Your task to perform on an android device: move a message to another label in the gmail app Image 0: 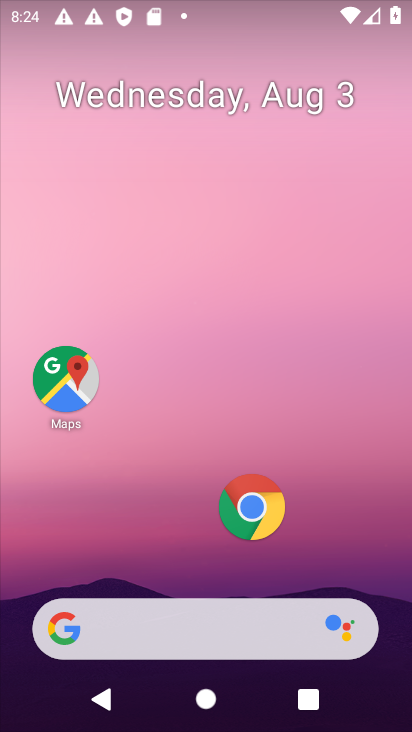
Step 0: click (250, 67)
Your task to perform on an android device: move a message to another label in the gmail app Image 1: 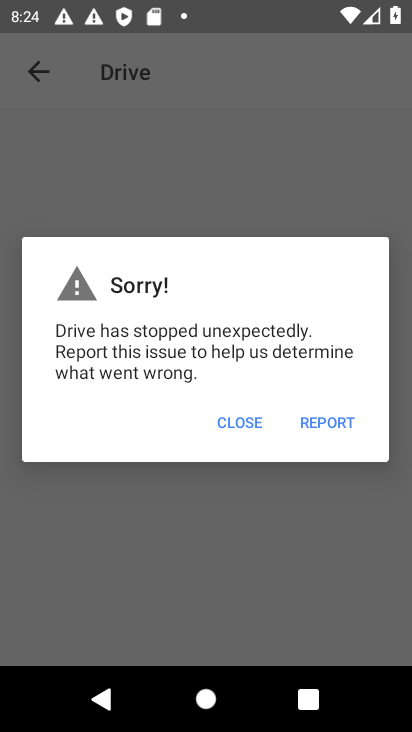
Step 1: click (240, 418)
Your task to perform on an android device: move a message to another label in the gmail app Image 2: 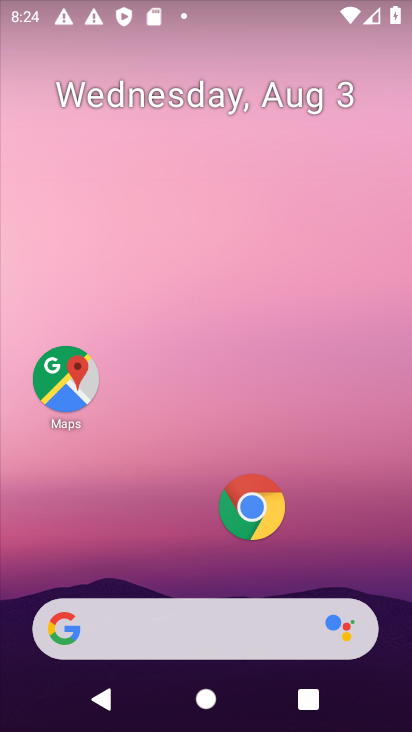
Step 2: drag from (210, 415) to (212, 173)
Your task to perform on an android device: move a message to another label in the gmail app Image 3: 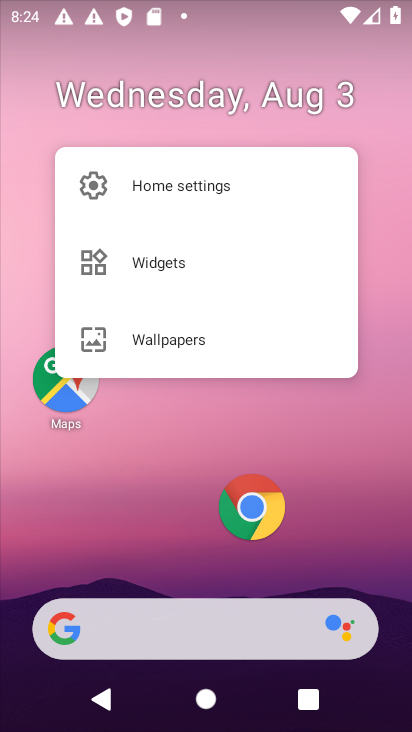
Step 3: click (180, 585)
Your task to perform on an android device: move a message to another label in the gmail app Image 4: 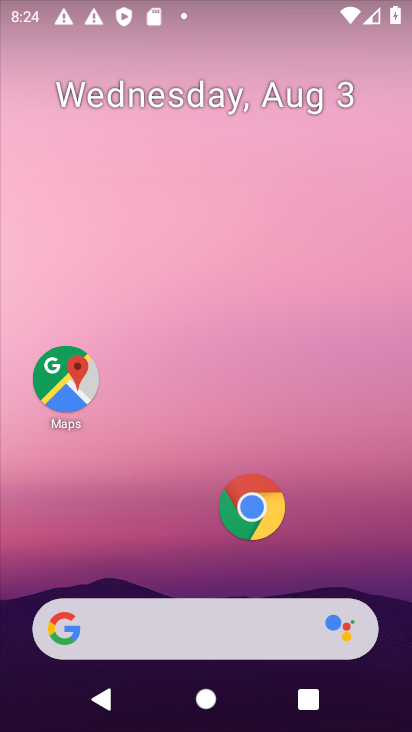
Step 4: drag from (180, 565) to (180, 50)
Your task to perform on an android device: move a message to another label in the gmail app Image 5: 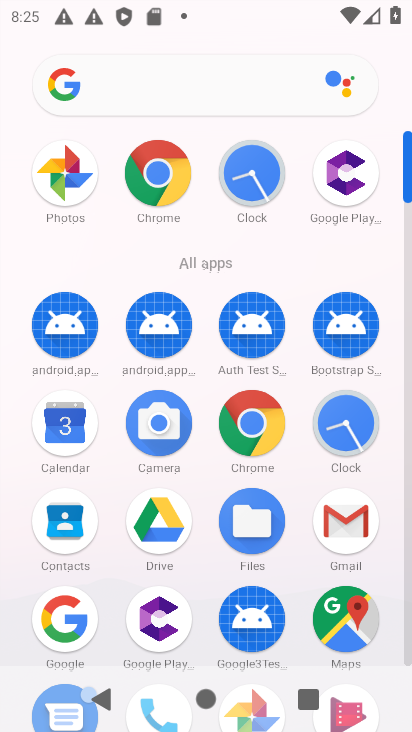
Step 5: click (344, 523)
Your task to perform on an android device: move a message to another label in the gmail app Image 6: 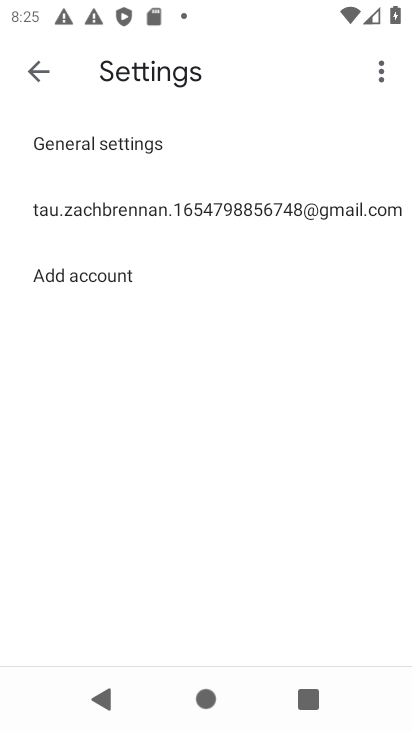
Step 6: click (214, 204)
Your task to perform on an android device: move a message to another label in the gmail app Image 7: 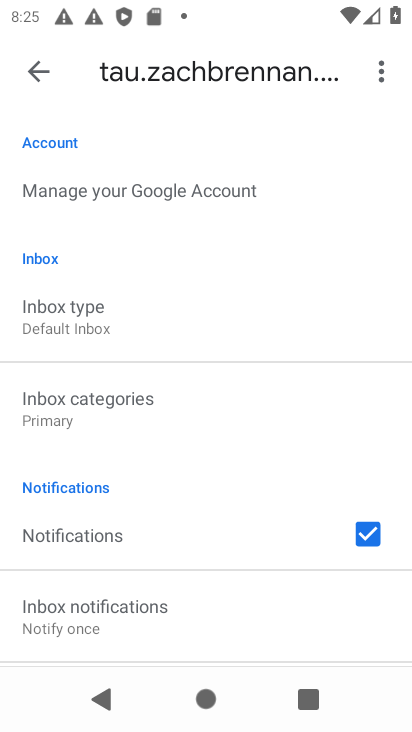
Step 7: click (23, 65)
Your task to perform on an android device: move a message to another label in the gmail app Image 8: 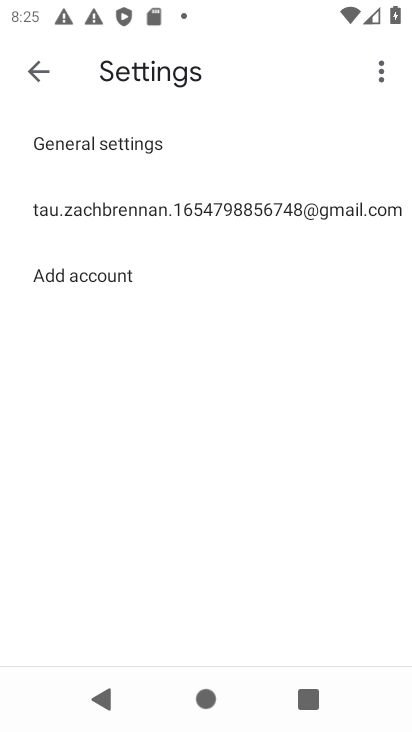
Step 8: click (23, 65)
Your task to perform on an android device: move a message to another label in the gmail app Image 9: 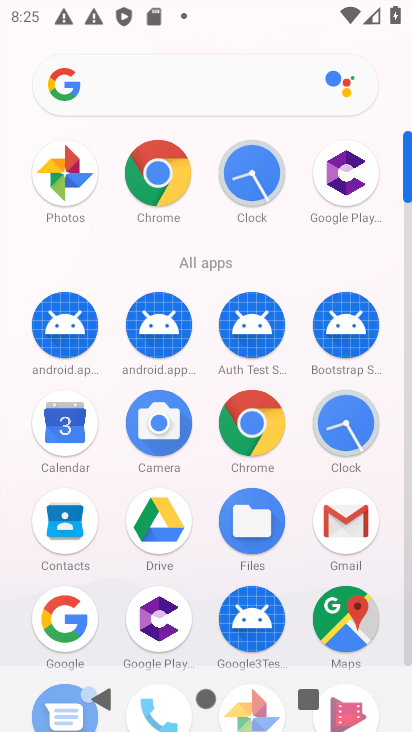
Step 9: click (332, 523)
Your task to perform on an android device: move a message to another label in the gmail app Image 10: 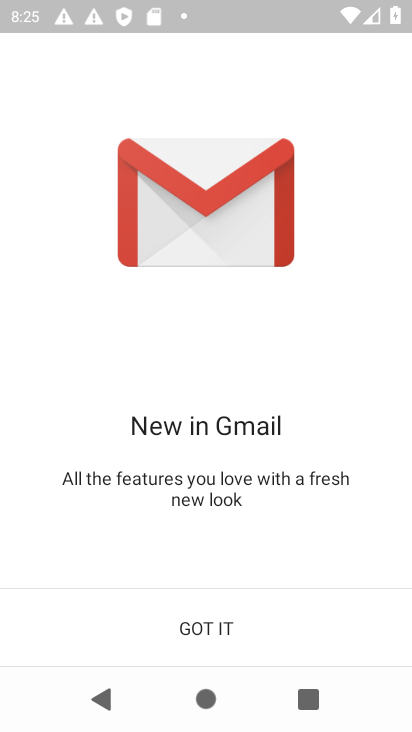
Step 10: click (197, 636)
Your task to perform on an android device: move a message to another label in the gmail app Image 11: 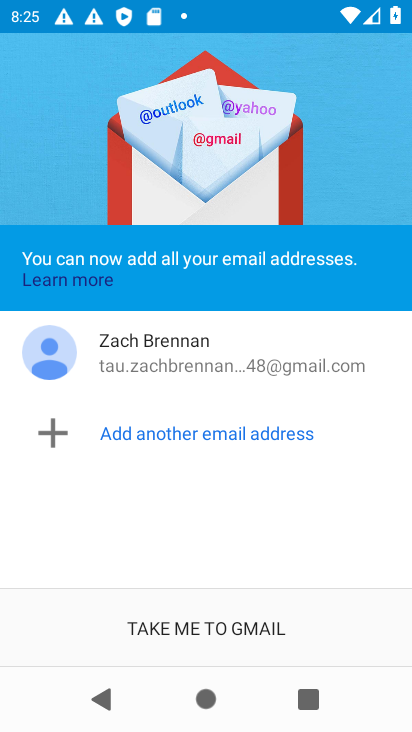
Step 11: click (197, 636)
Your task to perform on an android device: move a message to another label in the gmail app Image 12: 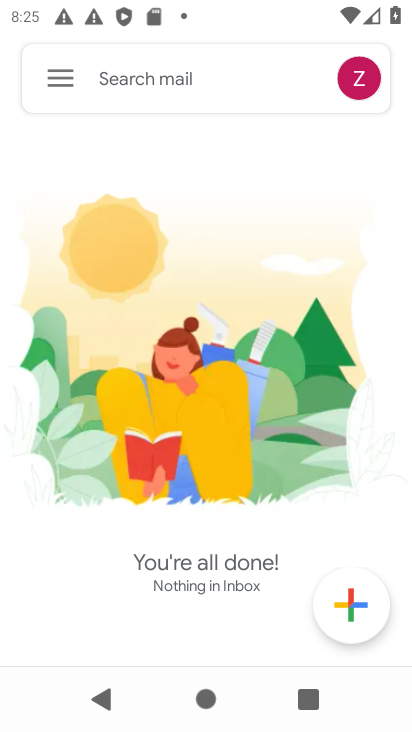
Step 12: click (61, 74)
Your task to perform on an android device: move a message to another label in the gmail app Image 13: 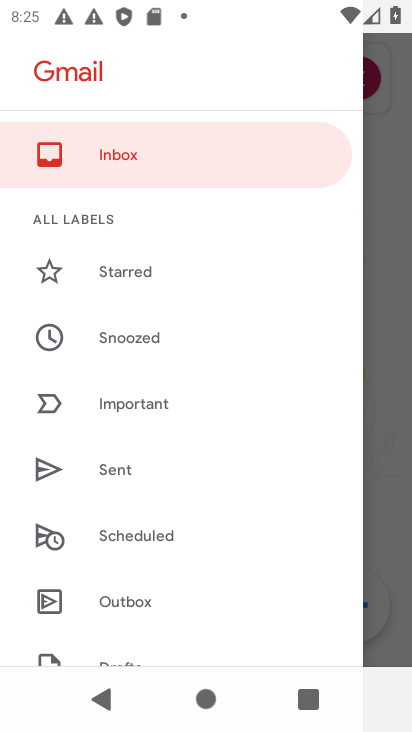
Step 13: click (183, 597)
Your task to perform on an android device: move a message to another label in the gmail app Image 14: 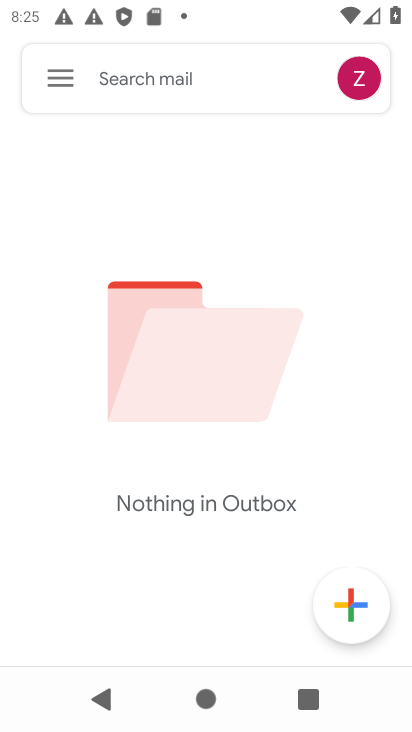
Step 14: click (49, 67)
Your task to perform on an android device: move a message to another label in the gmail app Image 15: 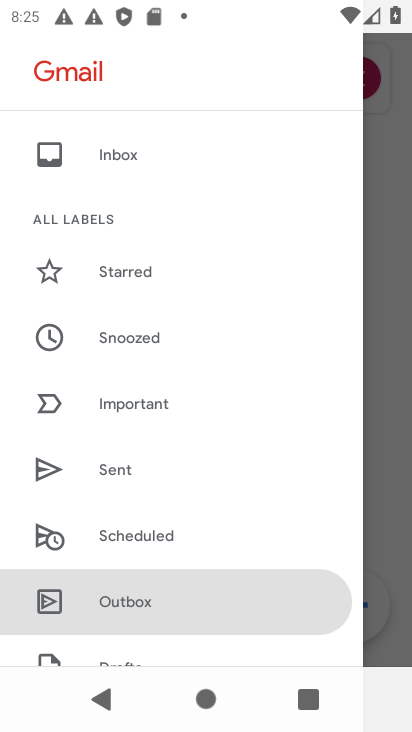
Step 15: drag from (164, 445) to (171, 269)
Your task to perform on an android device: move a message to another label in the gmail app Image 16: 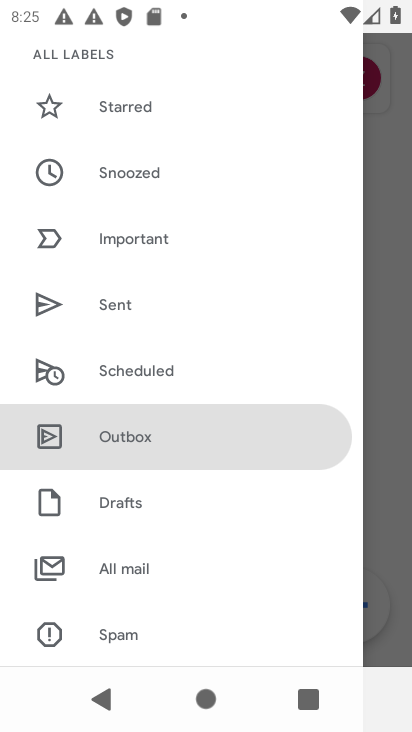
Step 16: click (103, 578)
Your task to perform on an android device: move a message to another label in the gmail app Image 17: 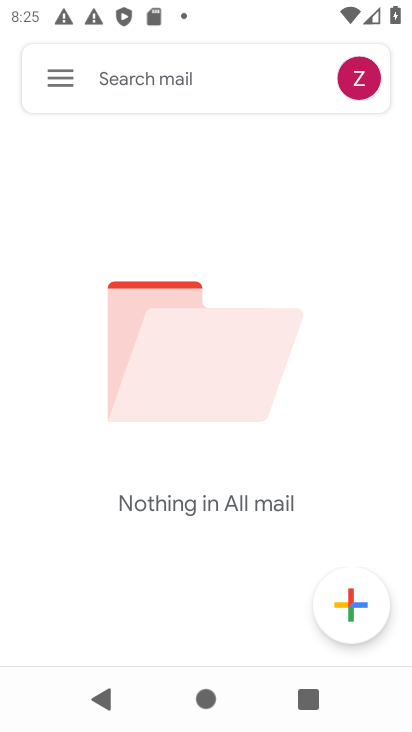
Step 17: task complete